Your task to perform on an android device: What's the weather like in Chicago? Image 0: 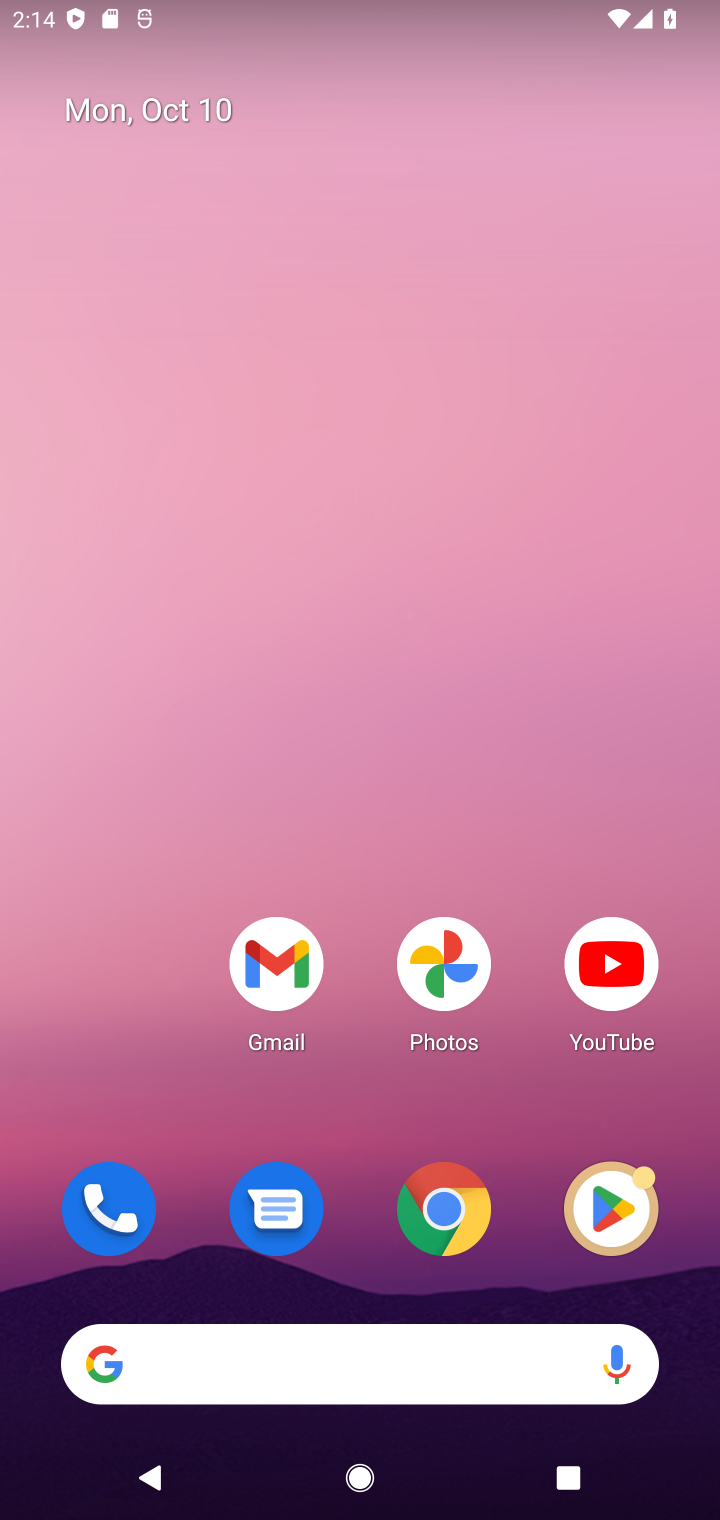
Step 0: click (450, 1244)
Your task to perform on an android device: What's the weather like in Chicago? Image 1: 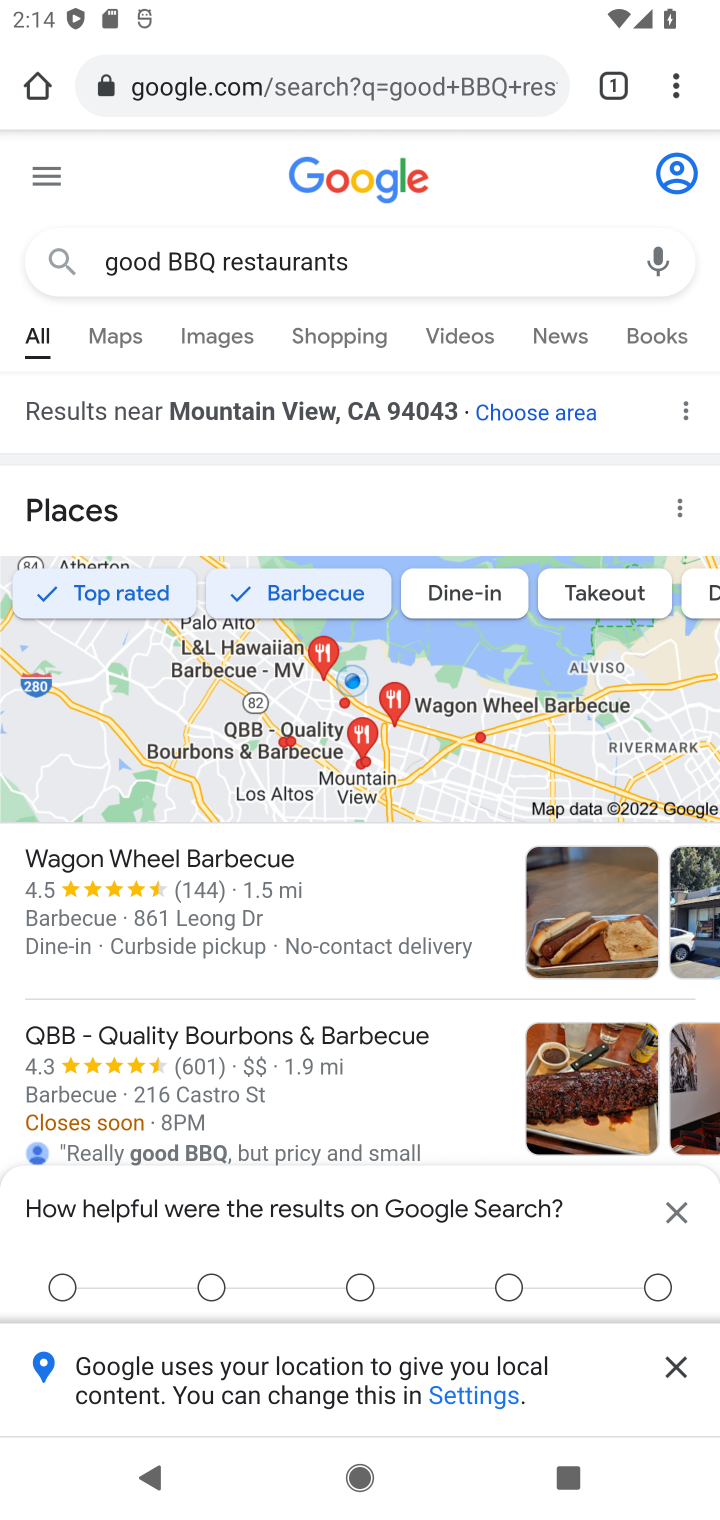
Step 1: click (410, 274)
Your task to perform on an android device: What's the weather like in Chicago? Image 2: 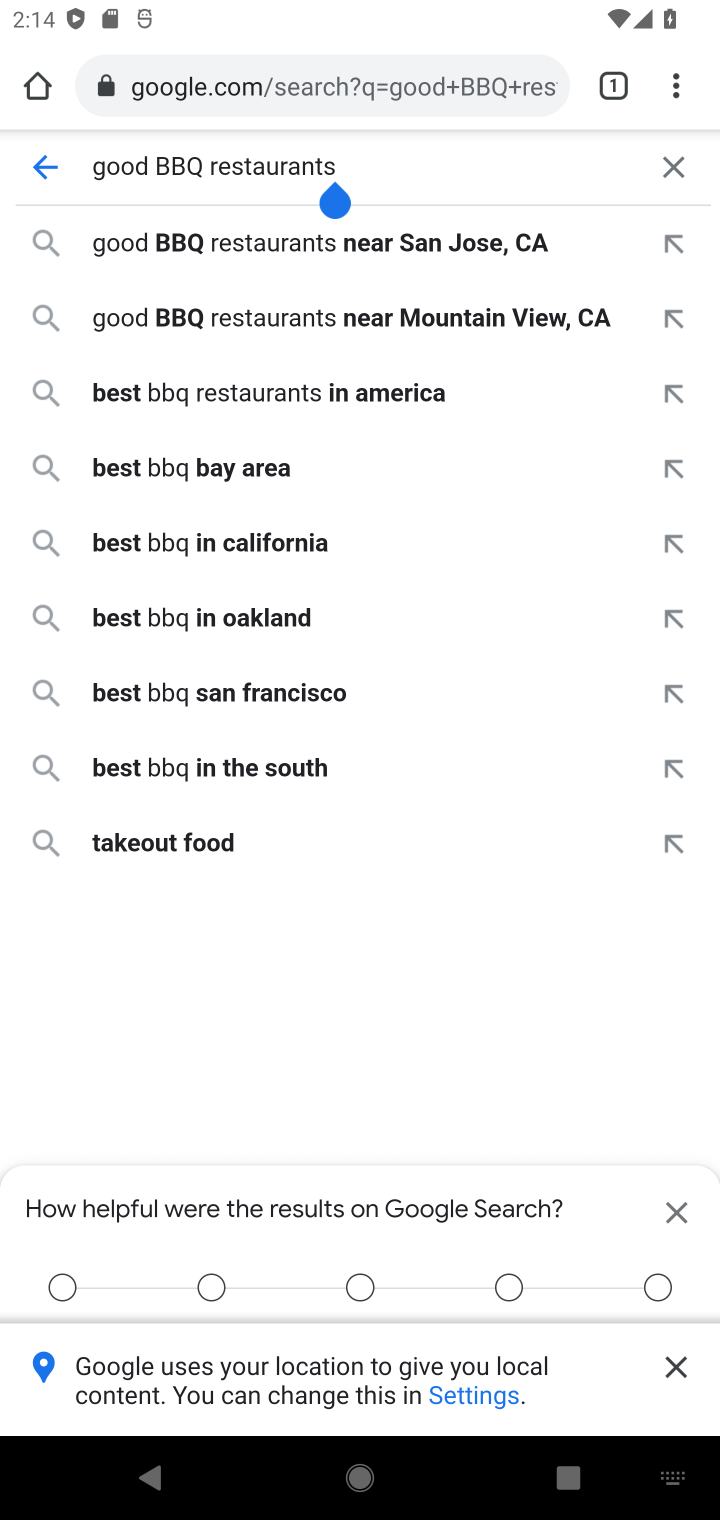
Step 2: click (673, 165)
Your task to perform on an android device: What's the weather like in Chicago? Image 3: 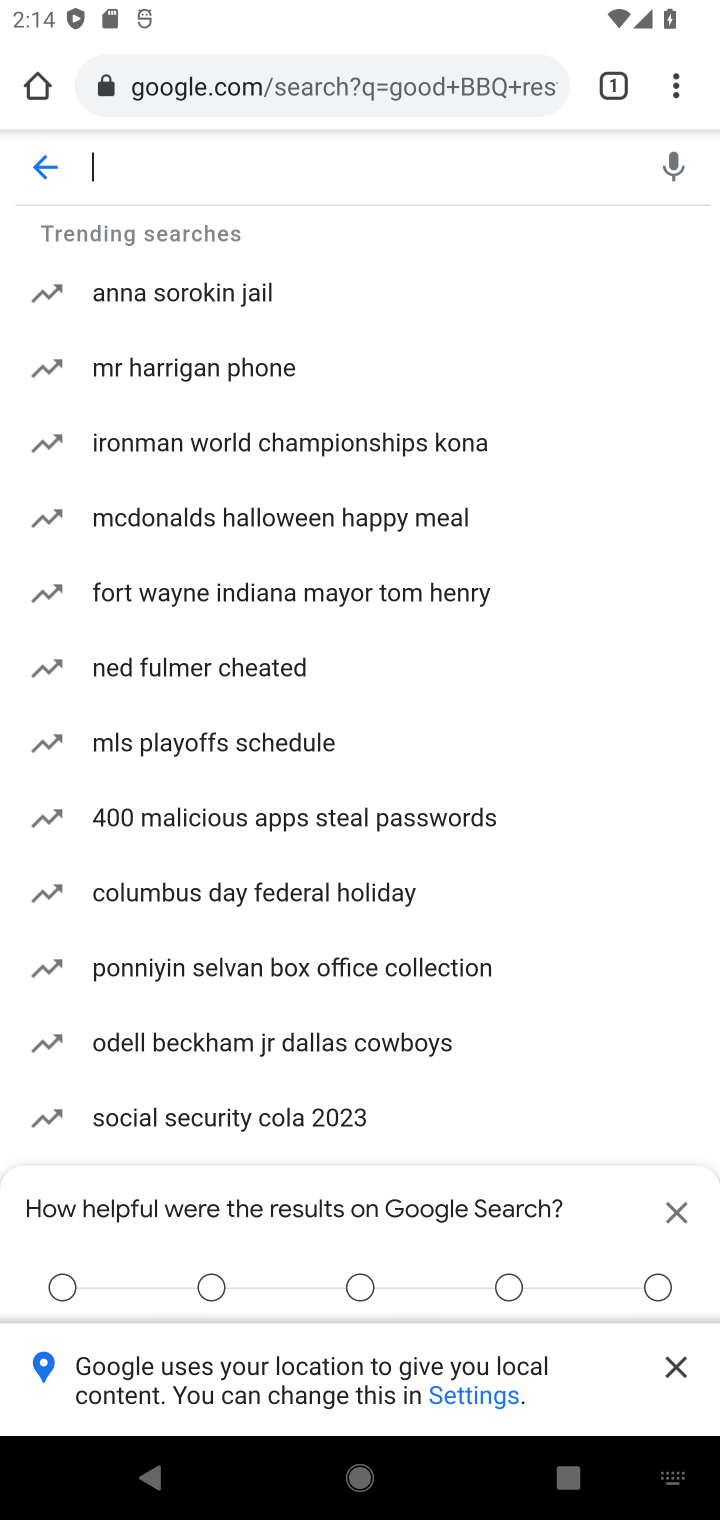
Step 3: type "What's the weather like in Chicago?"
Your task to perform on an android device: What's the weather like in Chicago? Image 4: 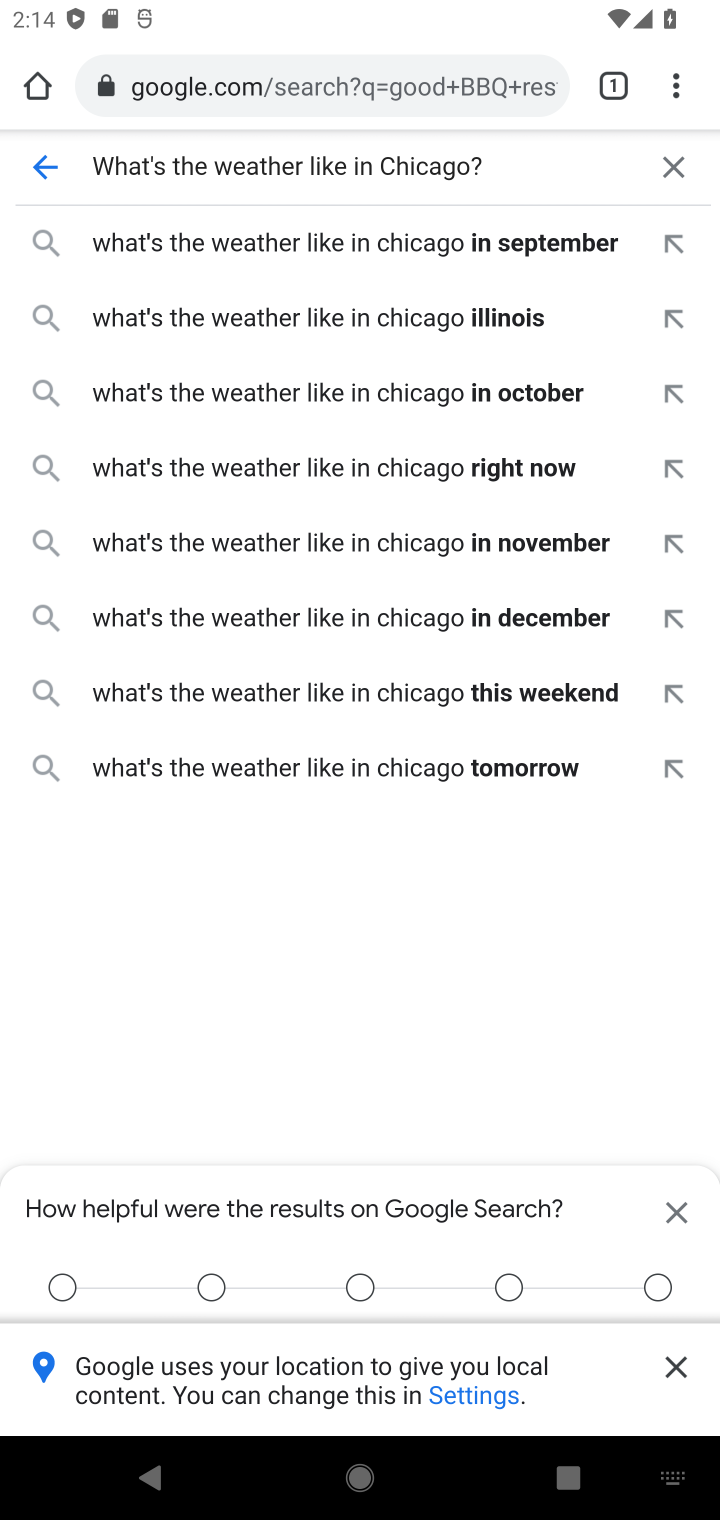
Step 4: press enter
Your task to perform on an android device: What's the weather like in Chicago? Image 5: 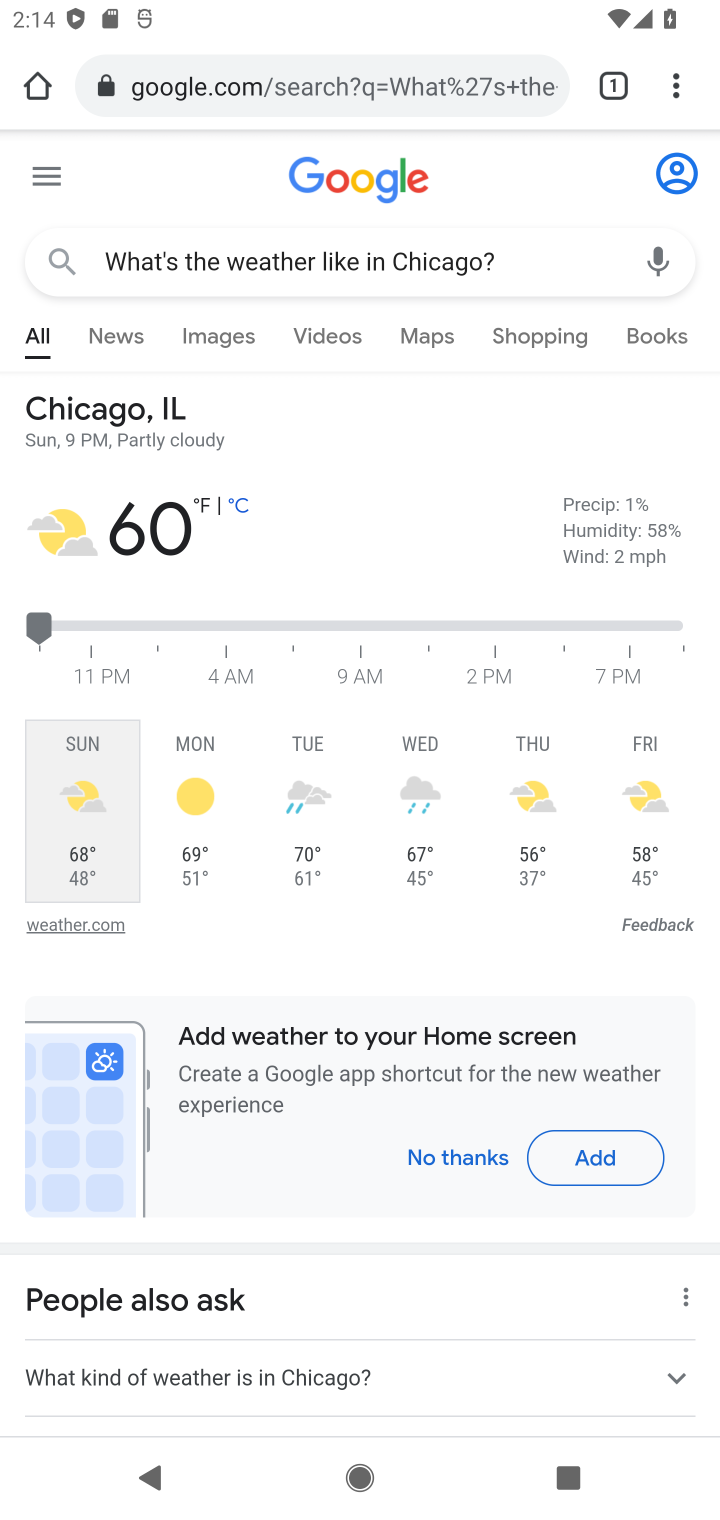
Step 5: task complete